Your task to perform on an android device: visit the assistant section in the google photos Image 0: 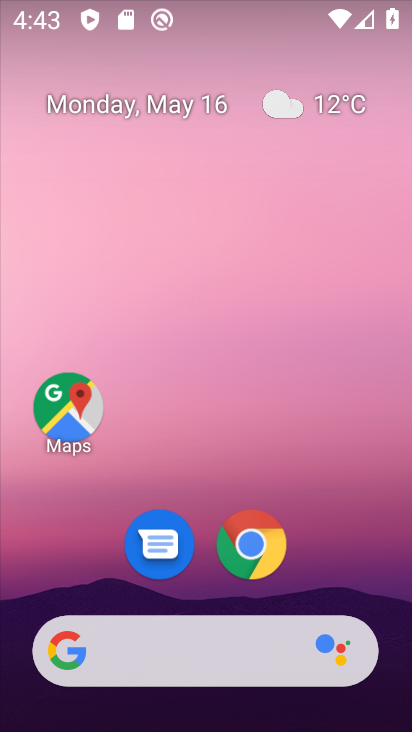
Step 0: drag from (325, 575) to (223, 9)
Your task to perform on an android device: visit the assistant section in the google photos Image 1: 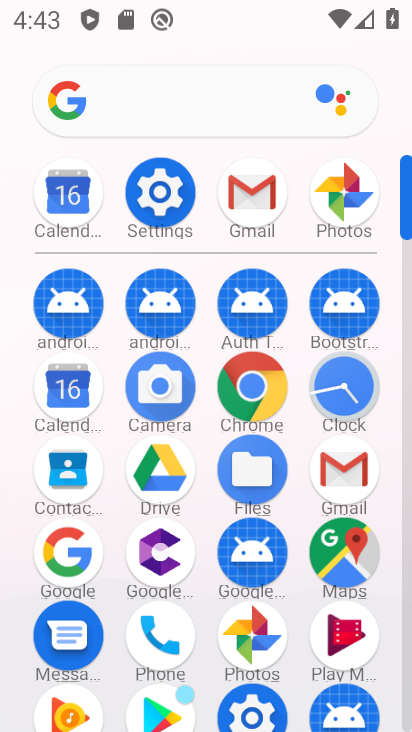
Step 1: click (343, 191)
Your task to perform on an android device: visit the assistant section in the google photos Image 2: 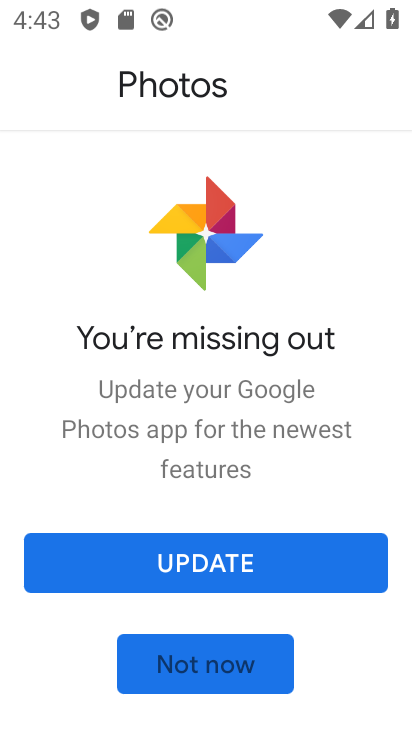
Step 2: click (220, 551)
Your task to perform on an android device: visit the assistant section in the google photos Image 3: 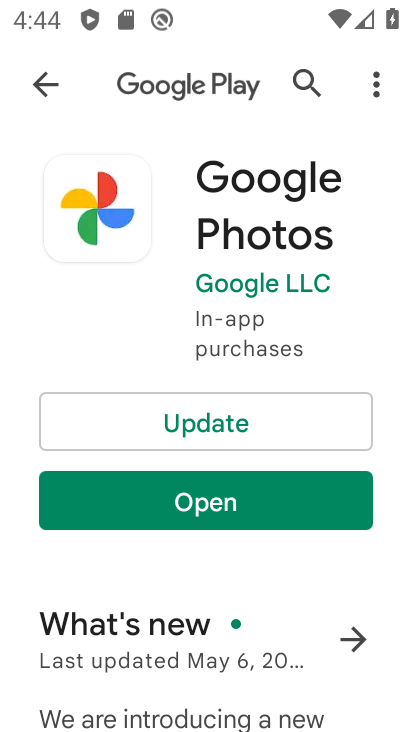
Step 3: click (208, 417)
Your task to perform on an android device: visit the assistant section in the google photos Image 4: 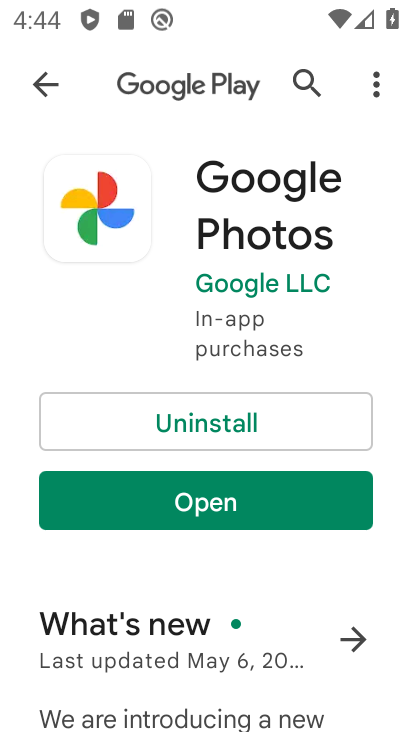
Step 4: click (250, 512)
Your task to perform on an android device: visit the assistant section in the google photos Image 5: 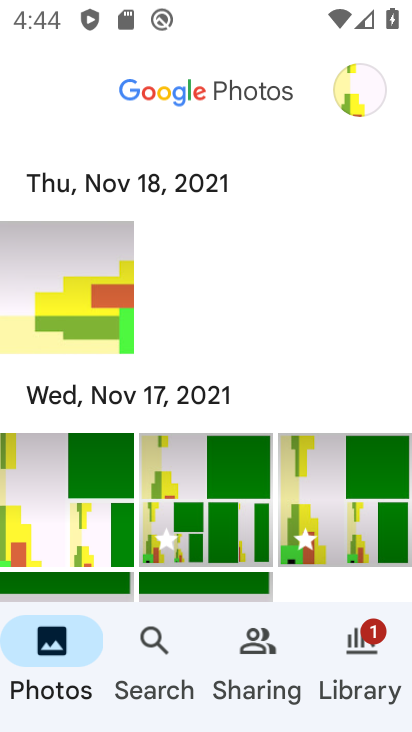
Step 5: click (356, 645)
Your task to perform on an android device: visit the assistant section in the google photos Image 6: 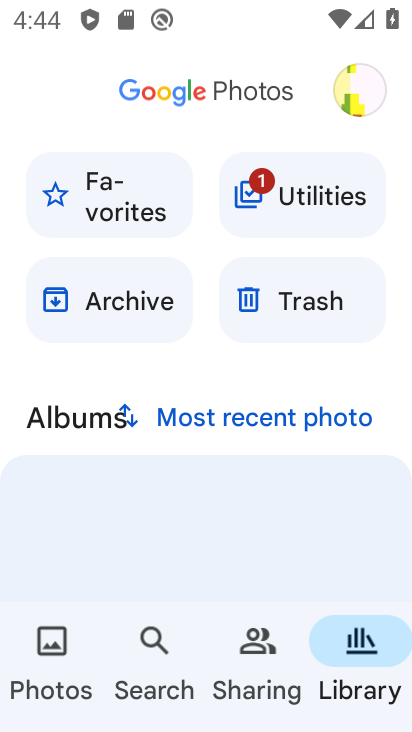
Step 6: drag from (216, 537) to (264, 234)
Your task to perform on an android device: visit the assistant section in the google photos Image 7: 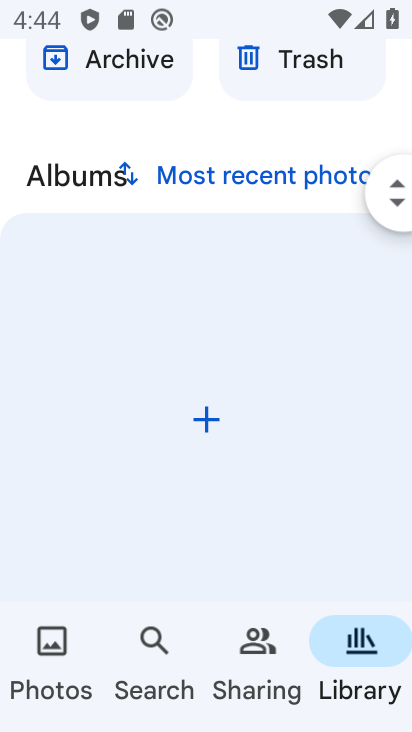
Step 7: drag from (217, 522) to (275, 222)
Your task to perform on an android device: visit the assistant section in the google photos Image 8: 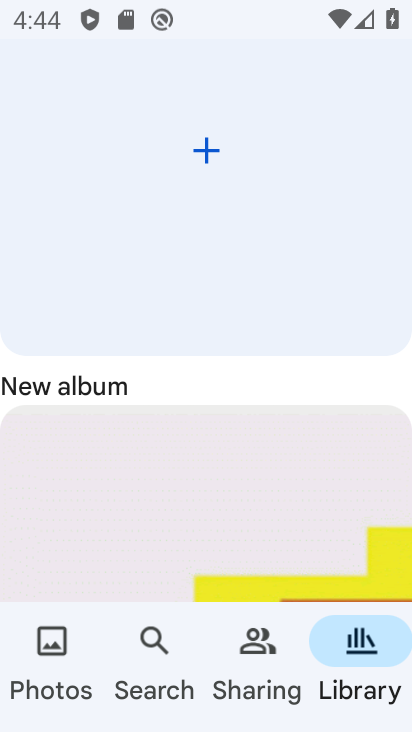
Step 8: click (260, 658)
Your task to perform on an android device: visit the assistant section in the google photos Image 9: 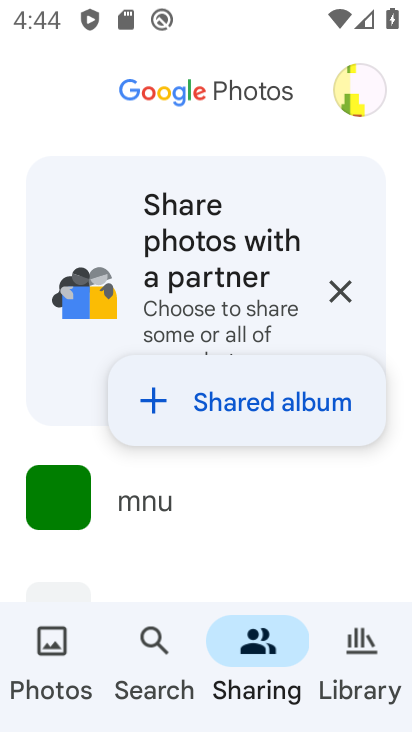
Step 9: click (335, 286)
Your task to perform on an android device: visit the assistant section in the google photos Image 10: 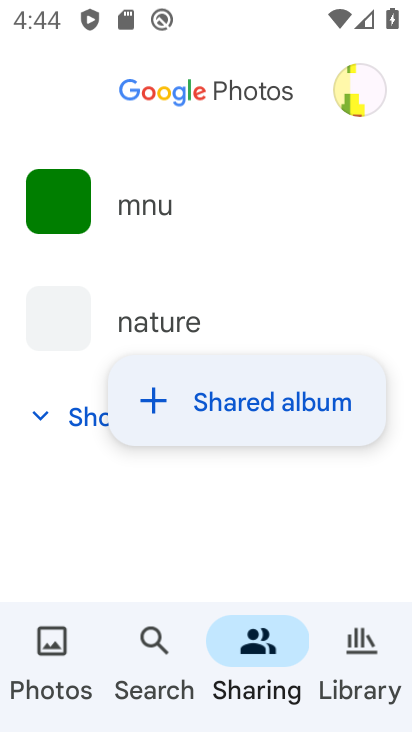
Step 10: drag from (235, 524) to (277, 283)
Your task to perform on an android device: visit the assistant section in the google photos Image 11: 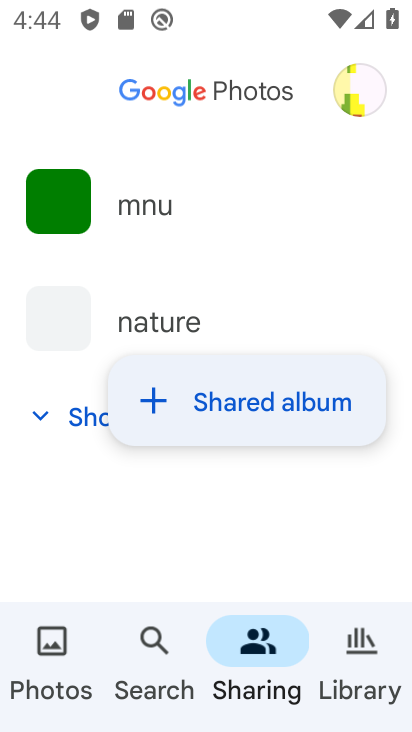
Step 11: click (164, 650)
Your task to perform on an android device: visit the assistant section in the google photos Image 12: 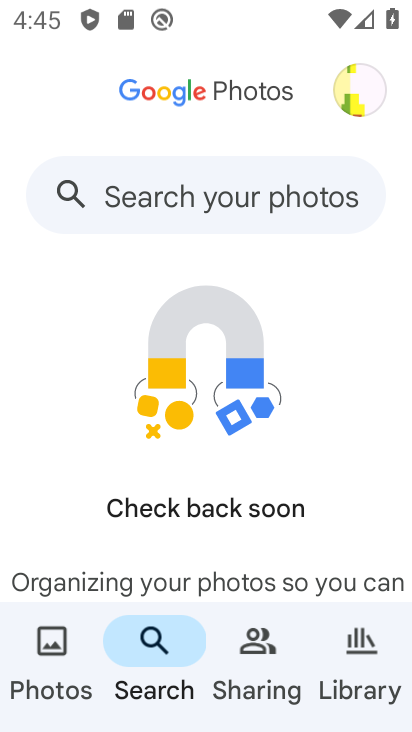
Step 12: task complete